Your task to perform on an android device: turn off notifications settings in the gmail app Image 0: 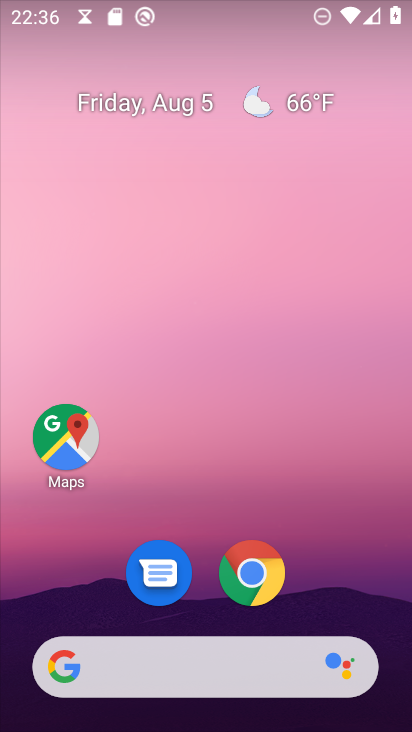
Step 0: drag from (225, 672) to (346, 207)
Your task to perform on an android device: turn off notifications settings in the gmail app Image 1: 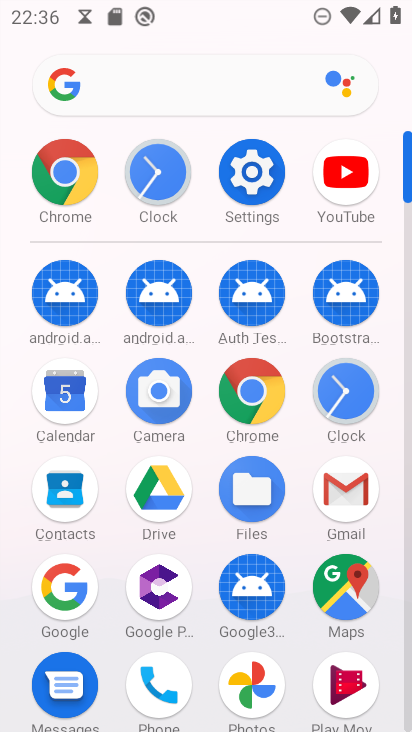
Step 1: click (345, 484)
Your task to perform on an android device: turn off notifications settings in the gmail app Image 2: 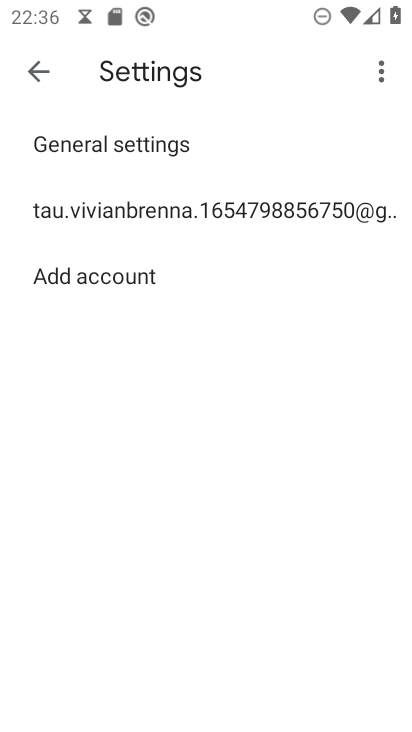
Step 2: click (116, 146)
Your task to perform on an android device: turn off notifications settings in the gmail app Image 3: 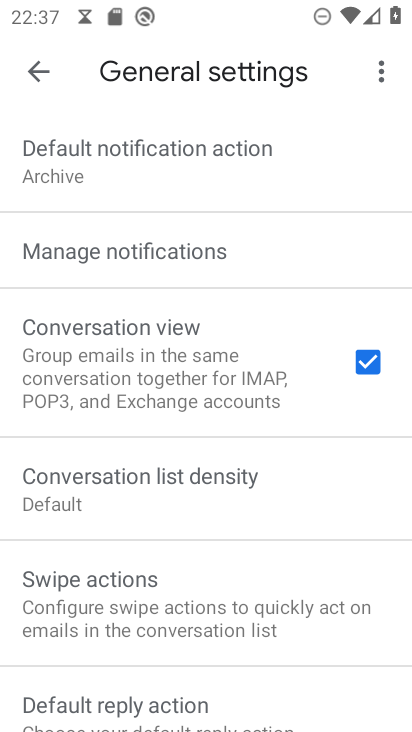
Step 3: click (133, 250)
Your task to perform on an android device: turn off notifications settings in the gmail app Image 4: 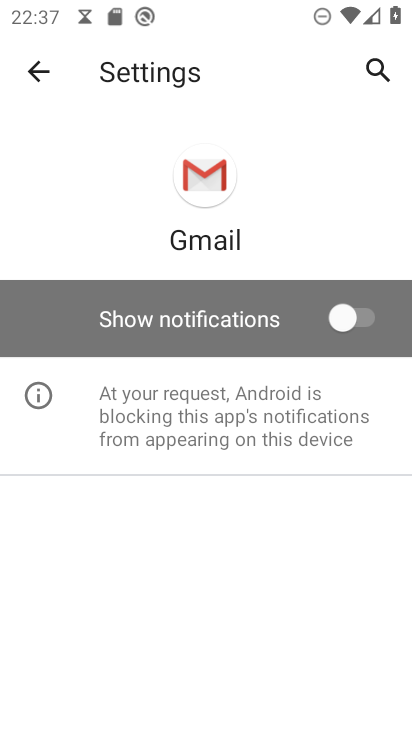
Step 4: task complete